Your task to perform on an android device: change the clock style Image 0: 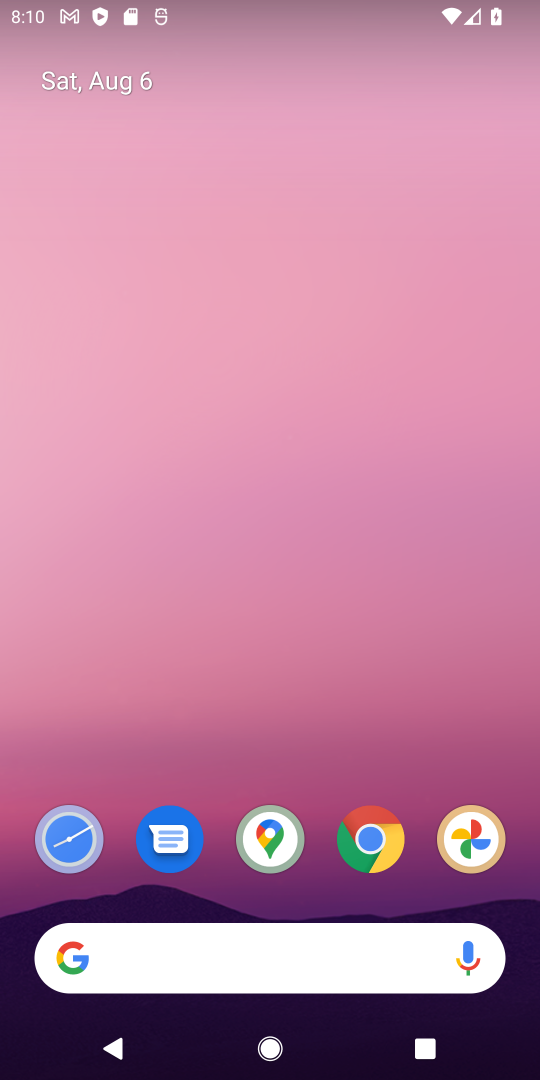
Step 0: click (83, 830)
Your task to perform on an android device: change the clock style Image 1: 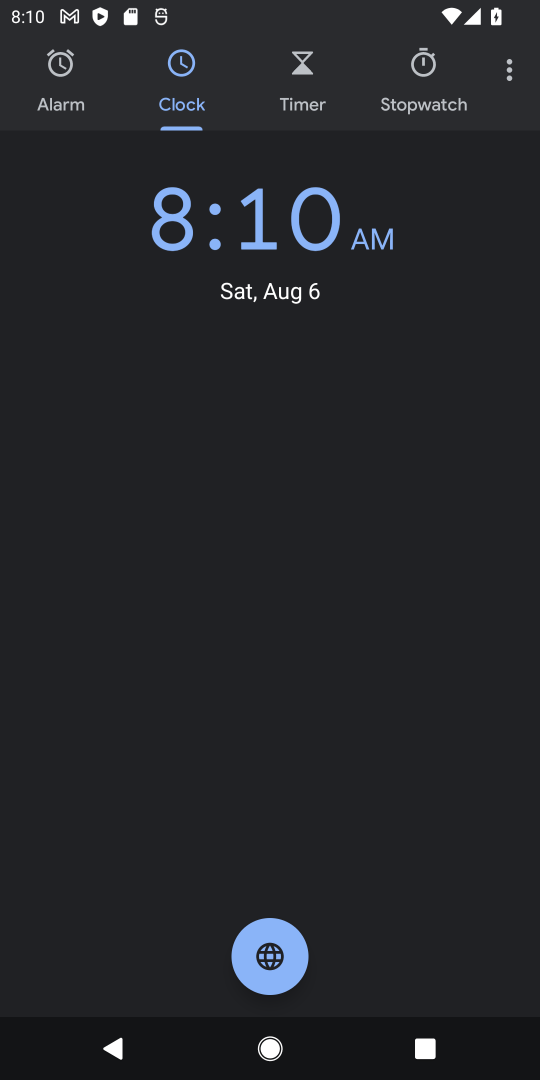
Step 1: click (509, 71)
Your task to perform on an android device: change the clock style Image 2: 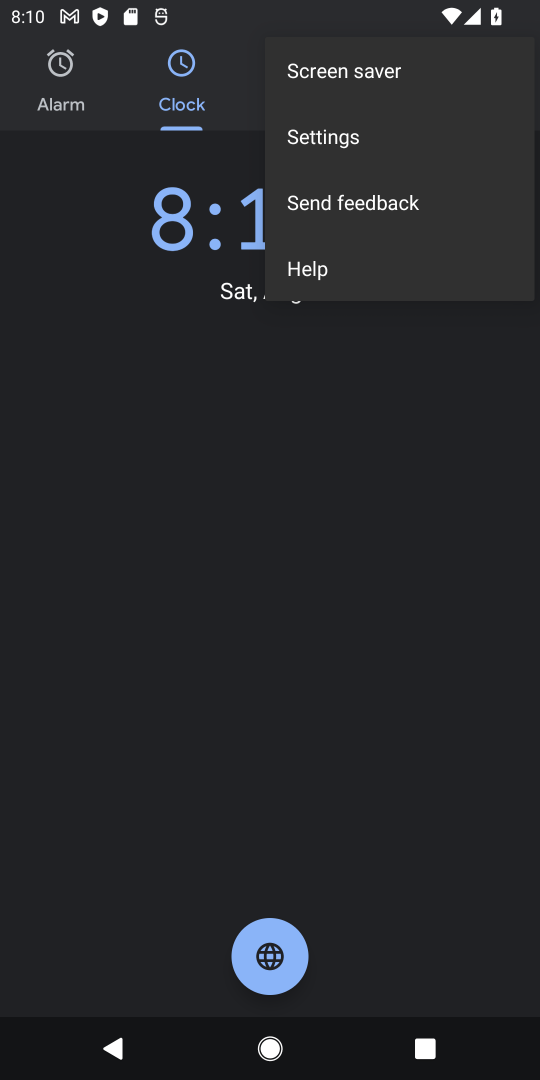
Step 2: click (359, 148)
Your task to perform on an android device: change the clock style Image 3: 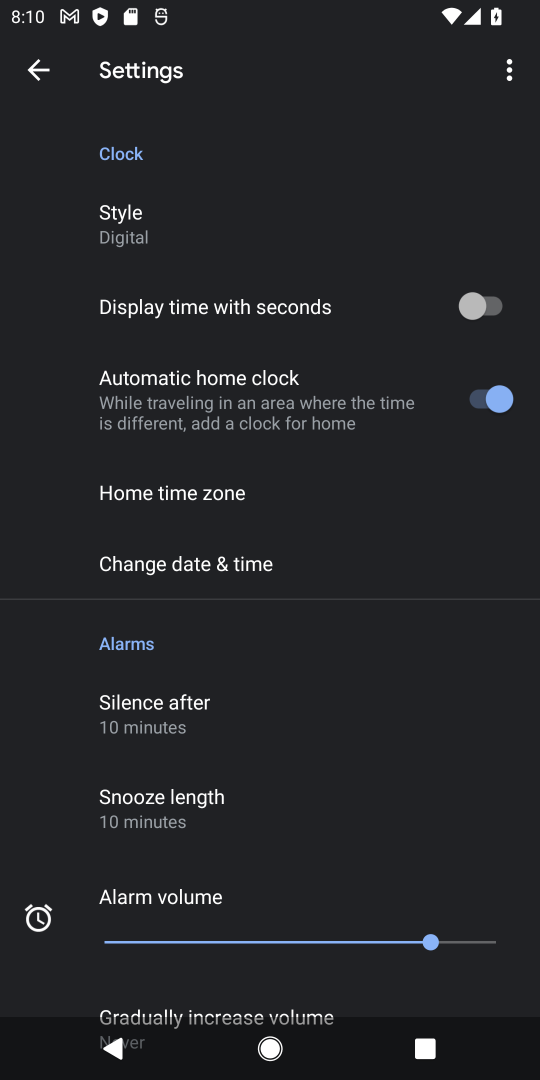
Step 3: click (254, 234)
Your task to perform on an android device: change the clock style Image 4: 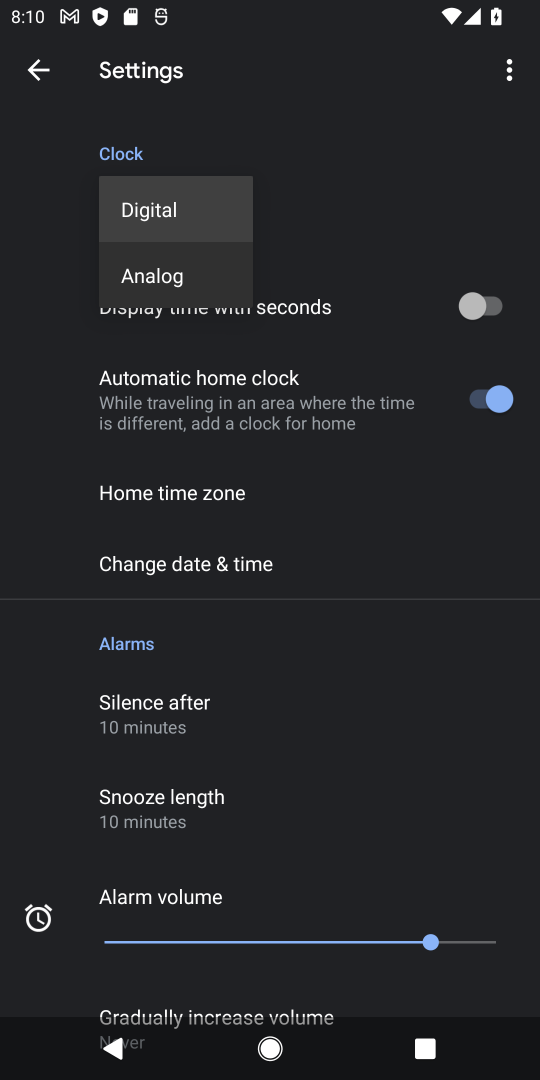
Step 4: click (198, 276)
Your task to perform on an android device: change the clock style Image 5: 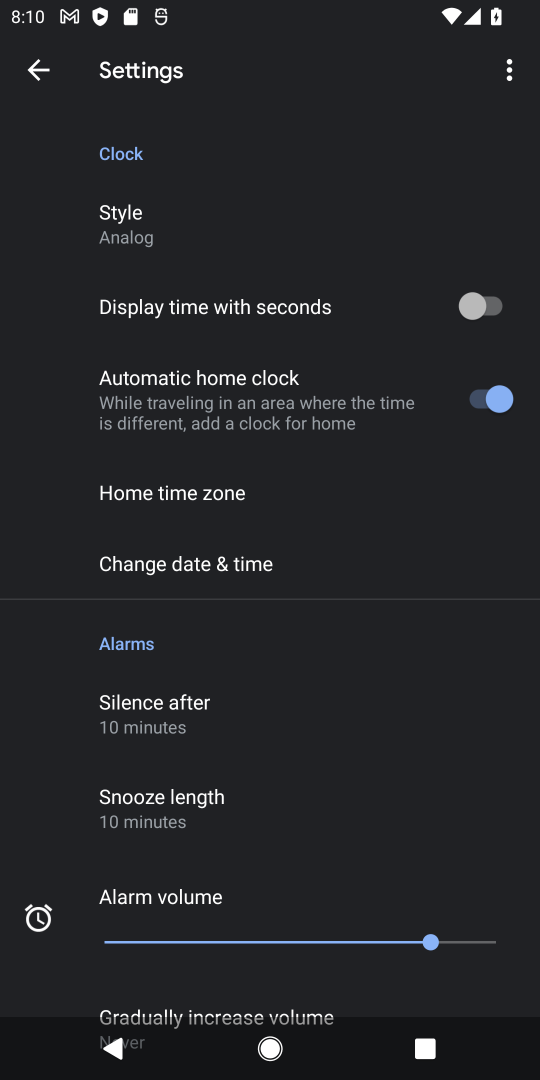
Step 5: task complete